Your task to perform on an android device: turn on airplane mode Image 0: 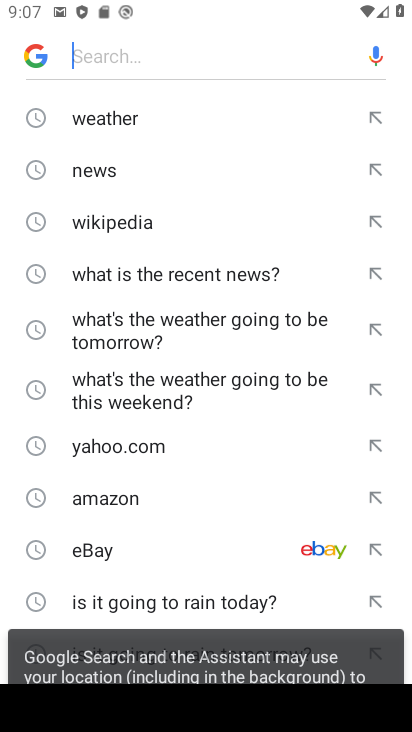
Step 0: press home button
Your task to perform on an android device: turn on airplane mode Image 1: 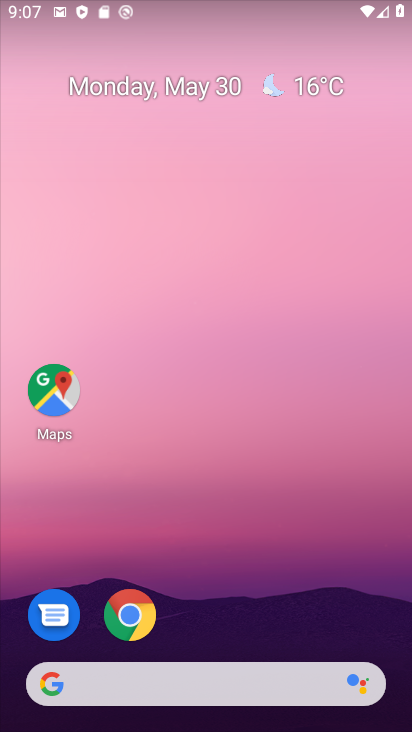
Step 1: drag from (348, 8) to (253, 610)
Your task to perform on an android device: turn on airplane mode Image 2: 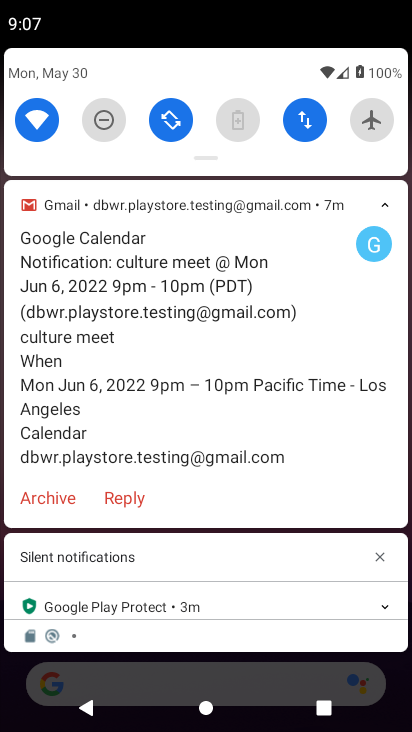
Step 2: click (365, 119)
Your task to perform on an android device: turn on airplane mode Image 3: 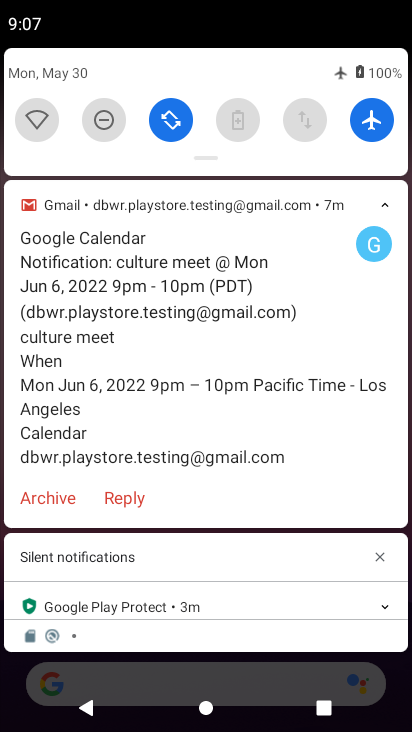
Step 3: task complete